Your task to perform on an android device: find snoozed emails in the gmail app Image 0: 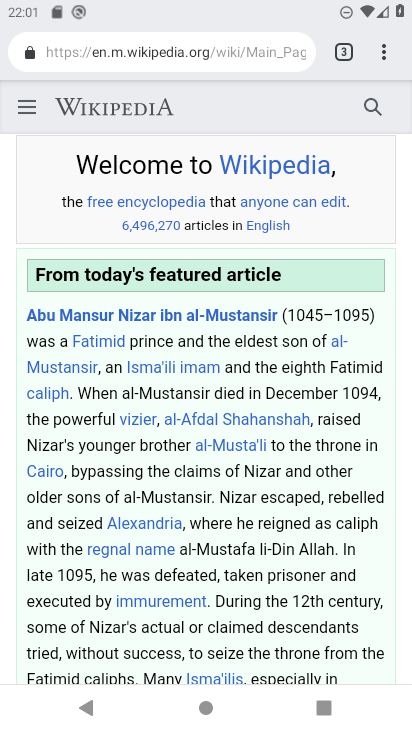
Step 0: press home button
Your task to perform on an android device: find snoozed emails in the gmail app Image 1: 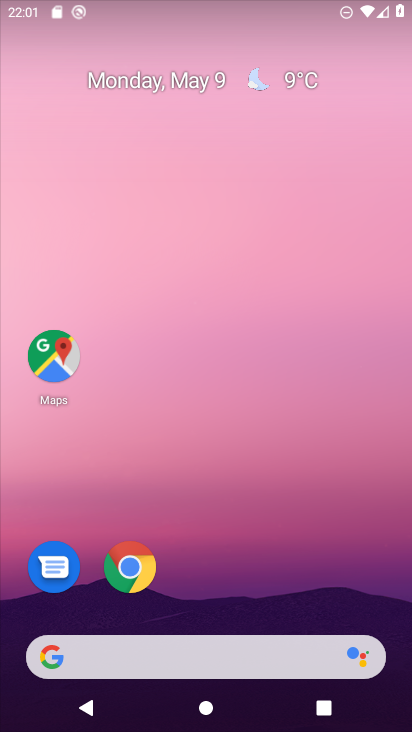
Step 1: drag from (273, 570) to (248, 75)
Your task to perform on an android device: find snoozed emails in the gmail app Image 2: 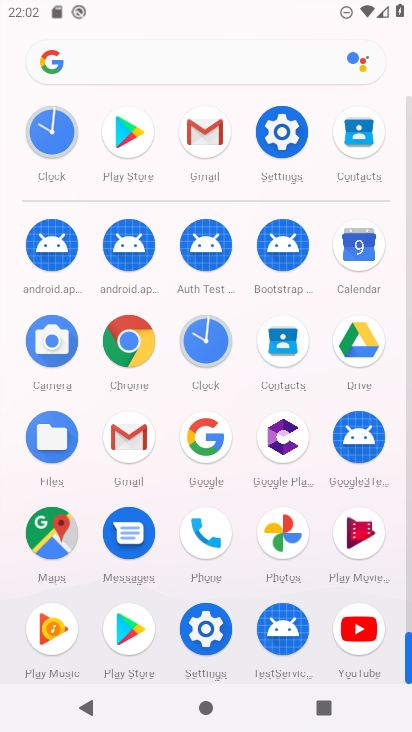
Step 2: click (216, 146)
Your task to perform on an android device: find snoozed emails in the gmail app Image 3: 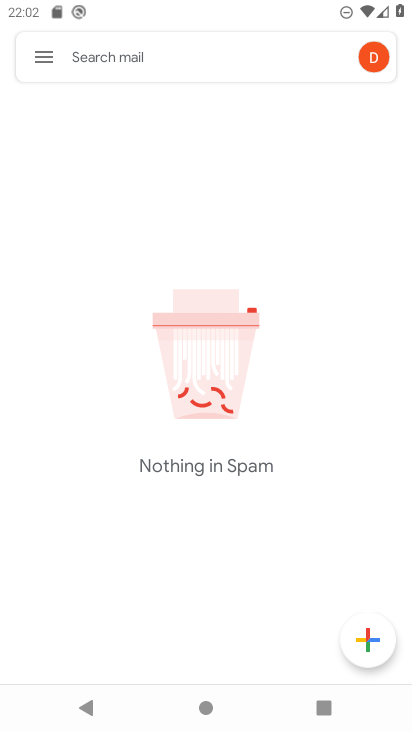
Step 3: click (50, 53)
Your task to perform on an android device: find snoozed emails in the gmail app Image 4: 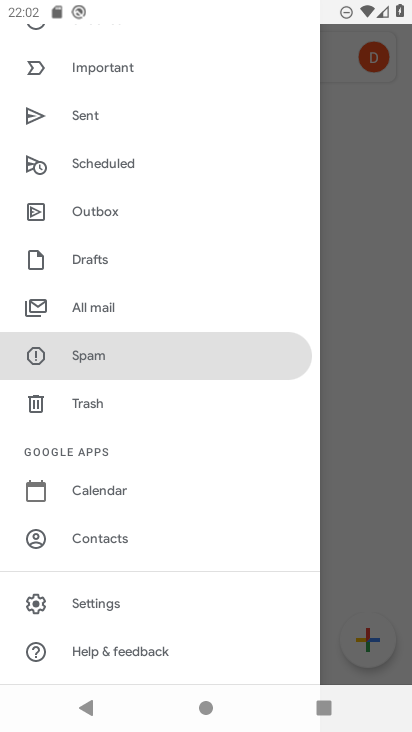
Step 4: drag from (153, 219) to (186, 516)
Your task to perform on an android device: find snoozed emails in the gmail app Image 5: 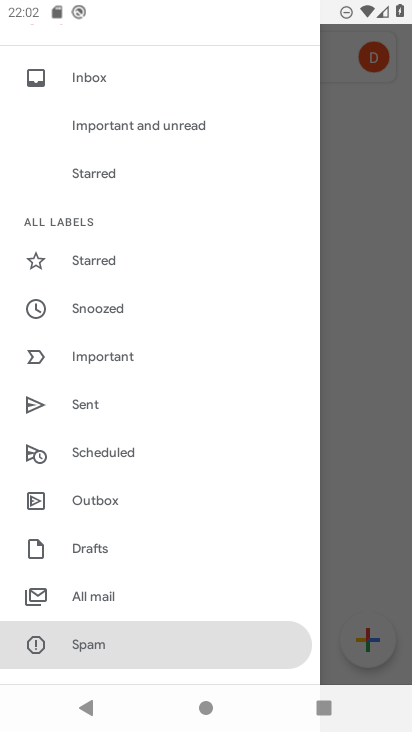
Step 5: click (138, 306)
Your task to perform on an android device: find snoozed emails in the gmail app Image 6: 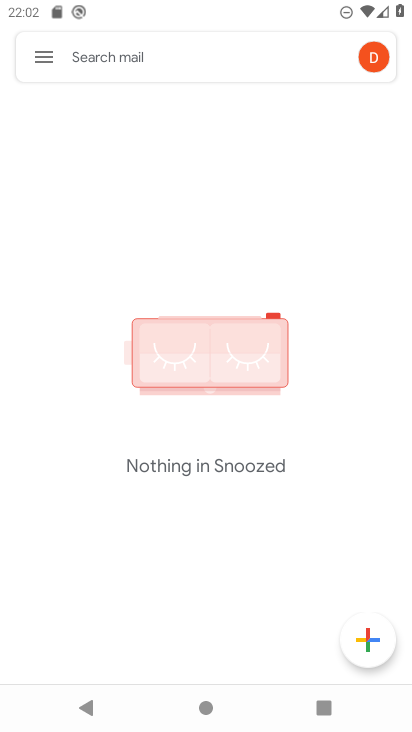
Step 6: task complete